Your task to perform on an android device: Open calendar and show me the third week of next month Image 0: 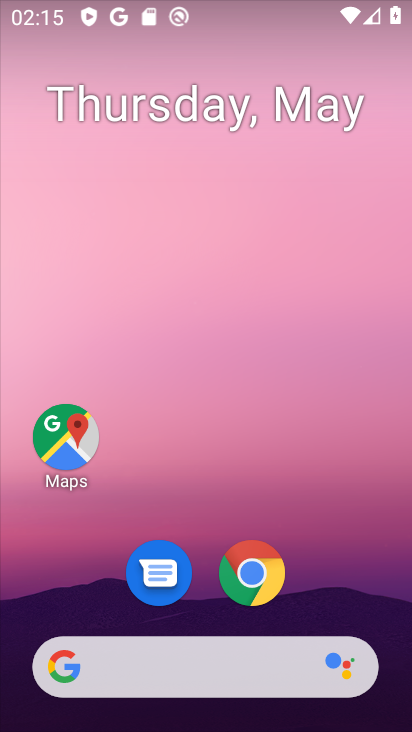
Step 0: drag from (318, 569) to (343, 273)
Your task to perform on an android device: Open calendar and show me the third week of next month Image 1: 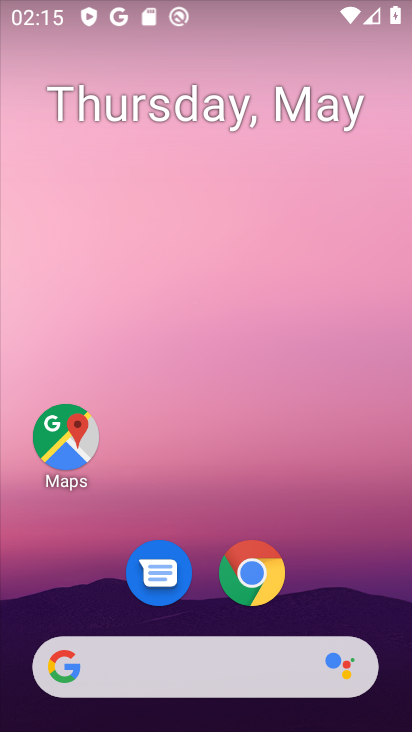
Step 1: click (294, 549)
Your task to perform on an android device: Open calendar and show me the third week of next month Image 2: 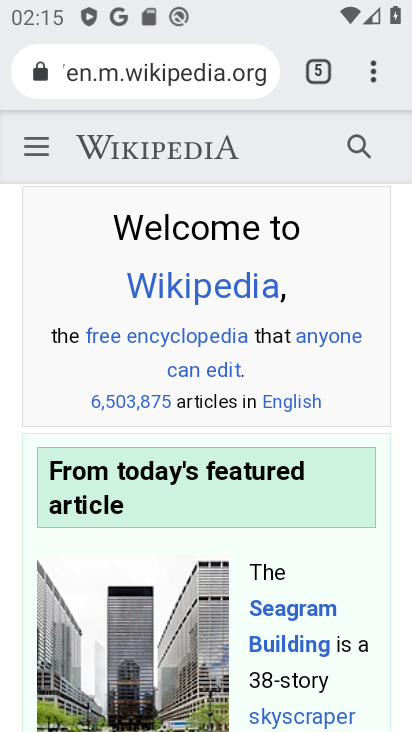
Step 2: press home button
Your task to perform on an android device: Open calendar and show me the third week of next month Image 3: 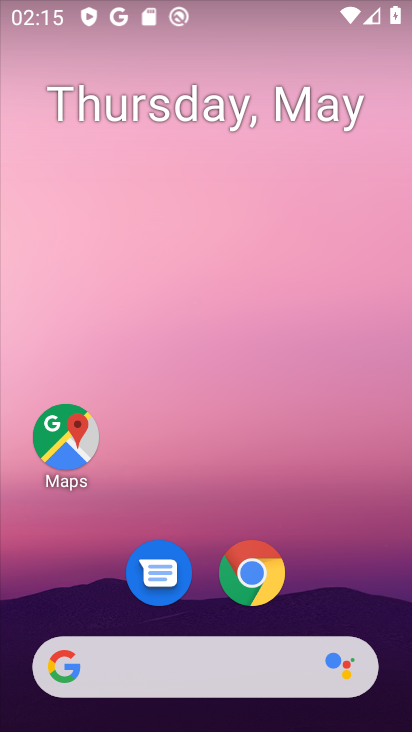
Step 3: drag from (351, 597) to (333, 230)
Your task to perform on an android device: Open calendar and show me the third week of next month Image 4: 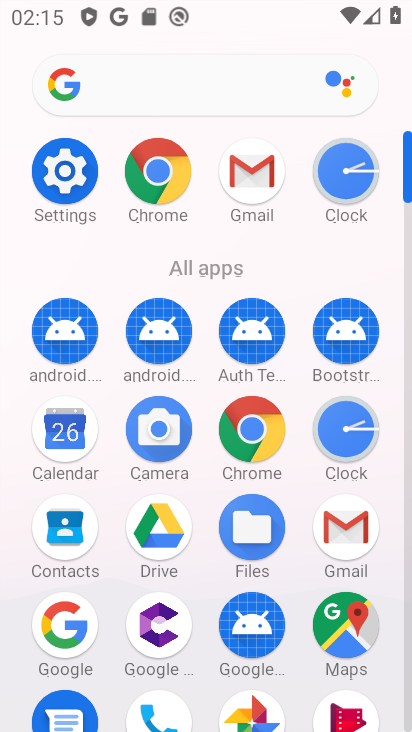
Step 4: click (57, 429)
Your task to perform on an android device: Open calendar and show me the third week of next month Image 5: 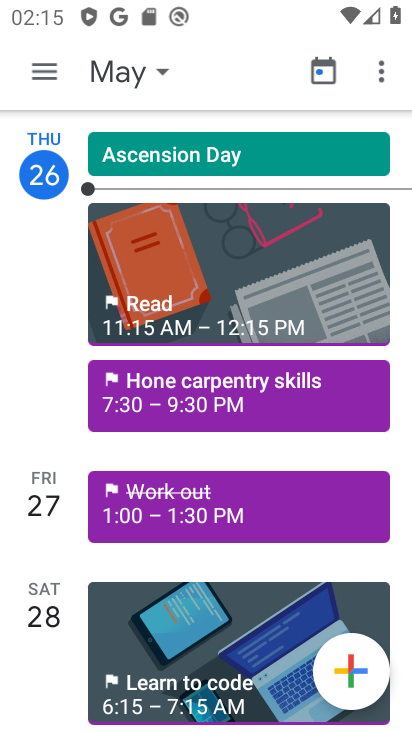
Step 5: click (36, 78)
Your task to perform on an android device: Open calendar and show me the third week of next month Image 6: 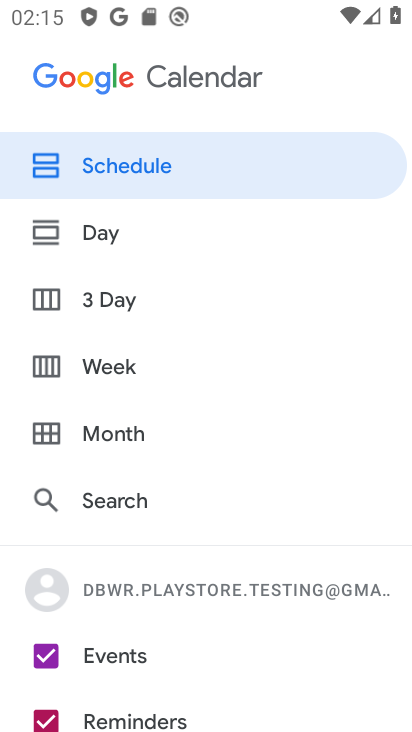
Step 6: click (110, 433)
Your task to perform on an android device: Open calendar and show me the third week of next month Image 7: 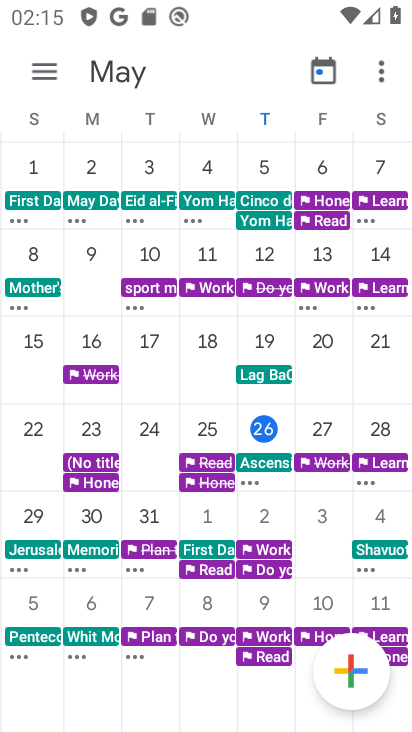
Step 7: task complete